Your task to perform on an android device: delete browsing data in the chrome app Image 0: 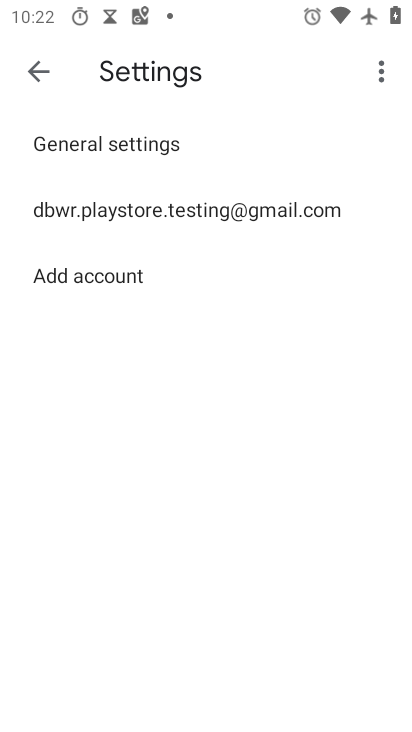
Step 0: press home button
Your task to perform on an android device: delete browsing data in the chrome app Image 1: 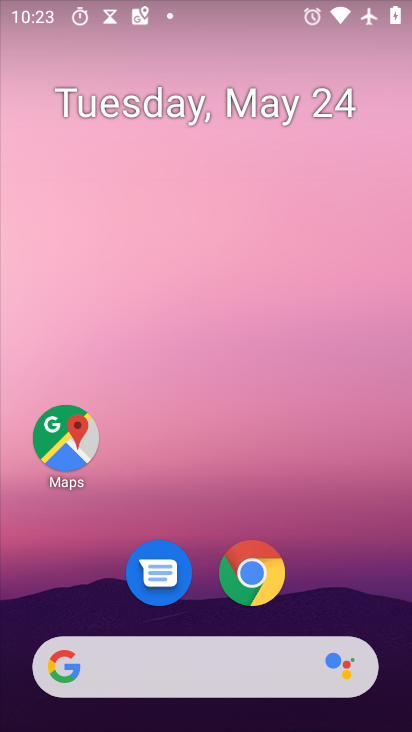
Step 1: click (275, 547)
Your task to perform on an android device: delete browsing data in the chrome app Image 2: 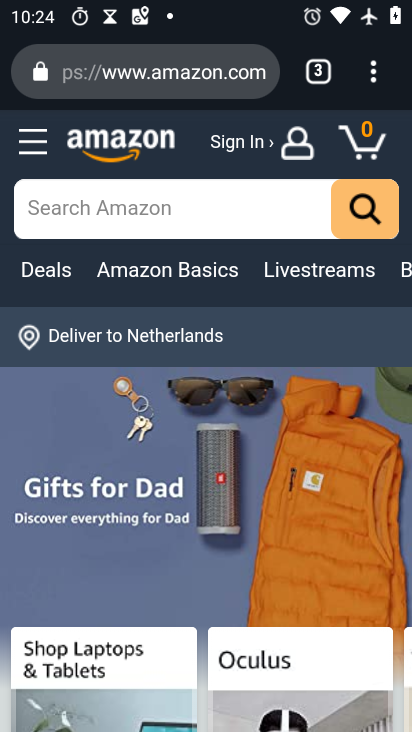
Step 2: drag from (390, 65) to (119, 399)
Your task to perform on an android device: delete browsing data in the chrome app Image 3: 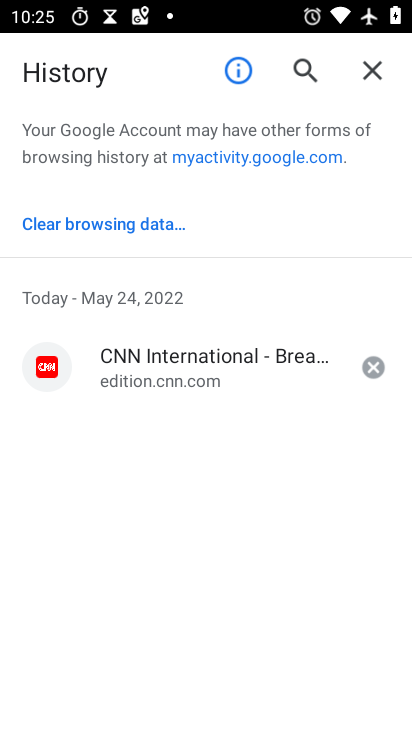
Step 3: click (153, 234)
Your task to perform on an android device: delete browsing data in the chrome app Image 4: 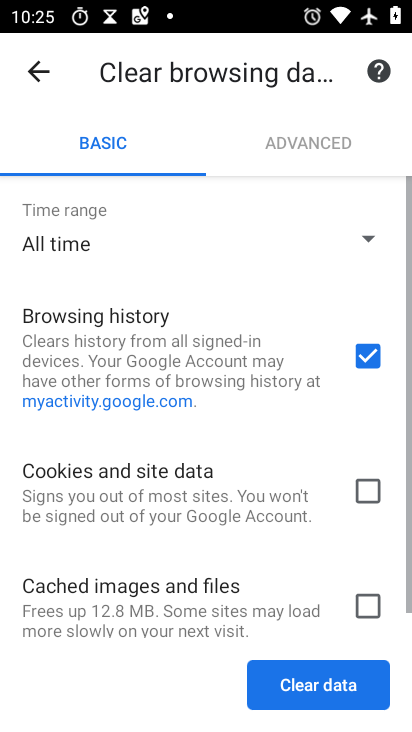
Step 4: click (292, 681)
Your task to perform on an android device: delete browsing data in the chrome app Image 5: 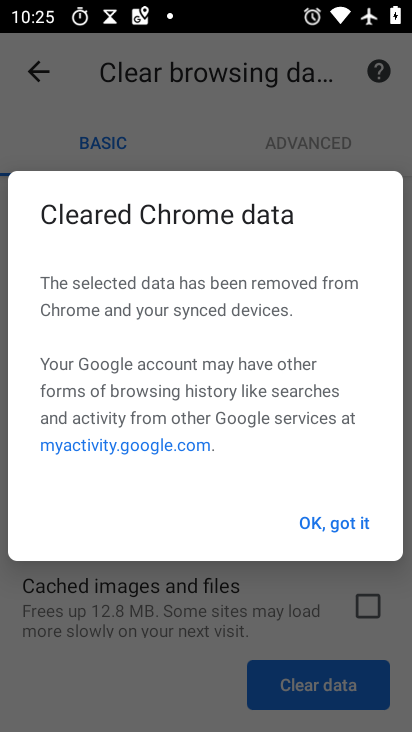
Step 5: task complete